Your task to perform on an android device: toggle airplane mode Image 0: 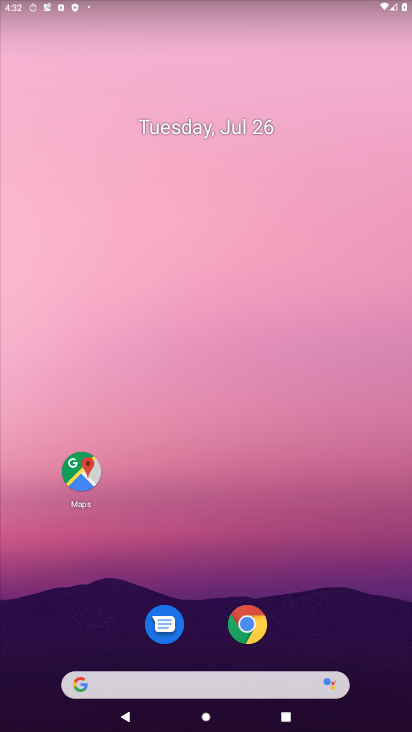
Step 0: press home button
Your task to perform on an android device: toggle airplane mode Image 1: 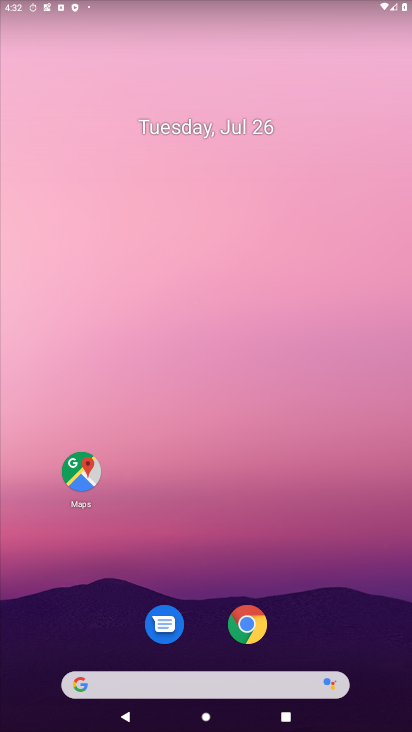
Step 1: drag from (279, 685) to (301, 3)
Your task to perform on an android device: toggle airplane mode Image 2: 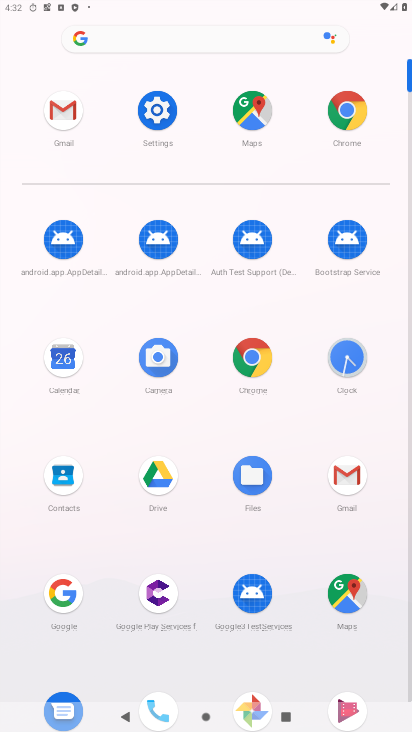
Step 2: click (146, 104)
Your task to perform on an android device: toggle airplane mode Image 3: 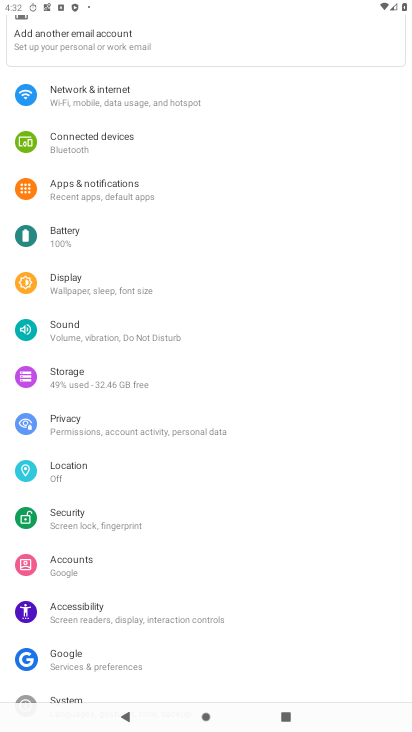
Step 3: click (120, 92)
Your task to perform on an android device: toggle airplane mode Image 4: 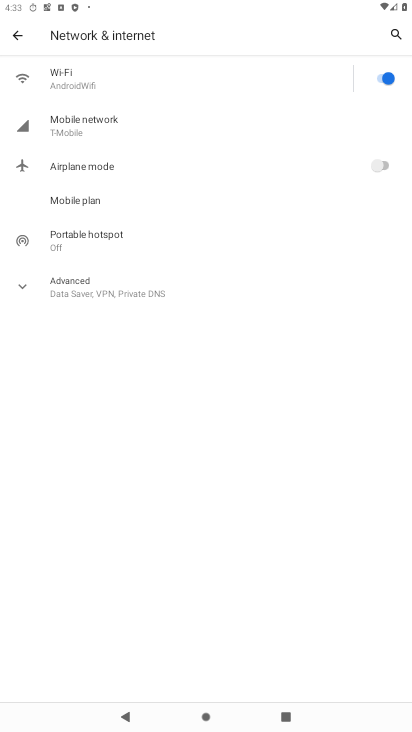
Step 4: click (120, 163)
Your task to perform on an android device: toggle airplane mode Image 5: 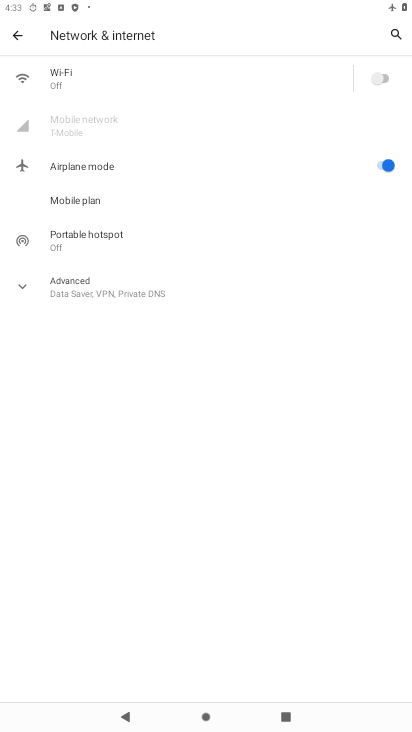
Step 5: task complete